Your task to perform on an android device: uninstall "Duolingo: language lessons" Image 0: 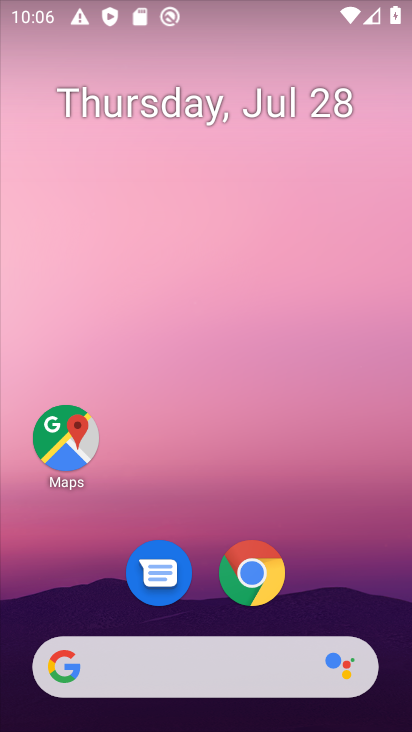
Step 0: drag from (121, 592) to (129, 222)
Your task to perform on an android device: uninstall "Duolingo: language lessons" Image 1: 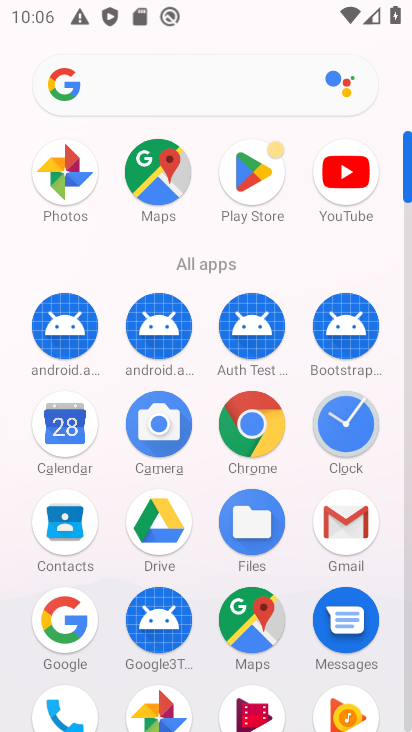
Step 1: task complete